Your task to perform on an android device: snooze an email in the gmail app Image 0: 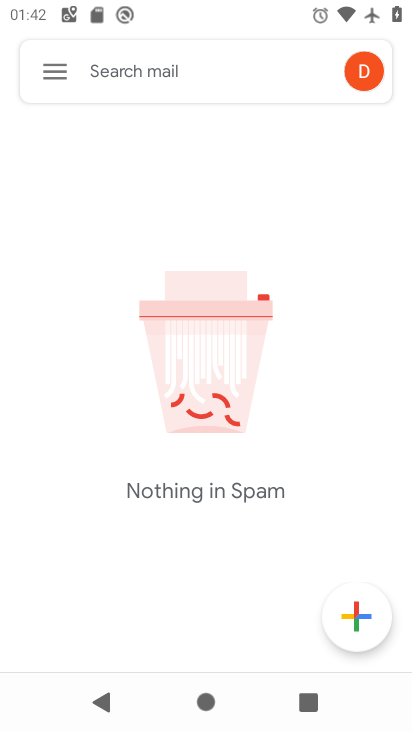
Step 0: press home button
Your task to perform on an android device: snooze an email in the gmail app Image 1: 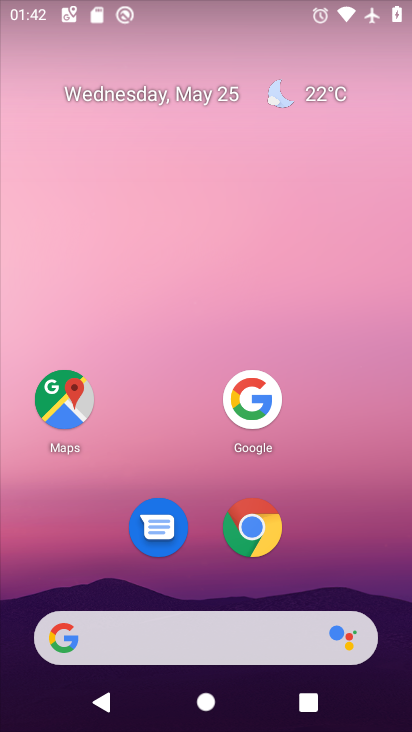
Step 1: drag from (171, 619) to (306, 171)
Your task to perform on an android device: snooze an email in the gmail app Image 2: 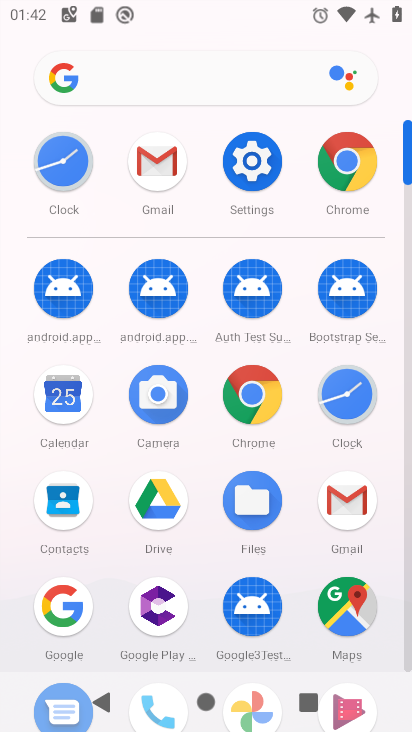
Step 2: click (335, 506)
Your task to perform on an android device: snooze an email in the gmail app Image 3: 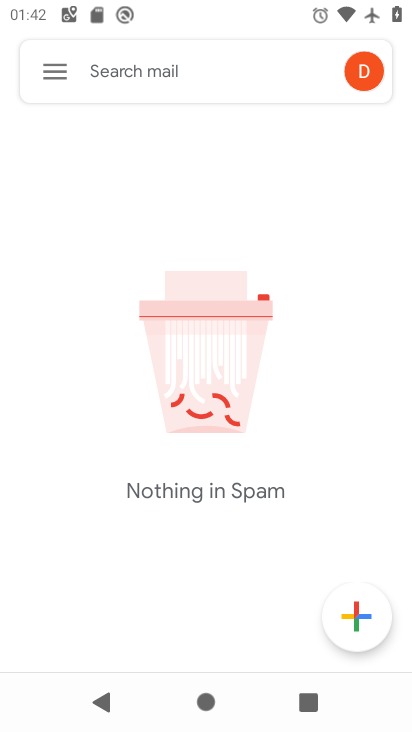
Step 3: task complete